Your task to perform on an android device: open wifi settings Image 0: 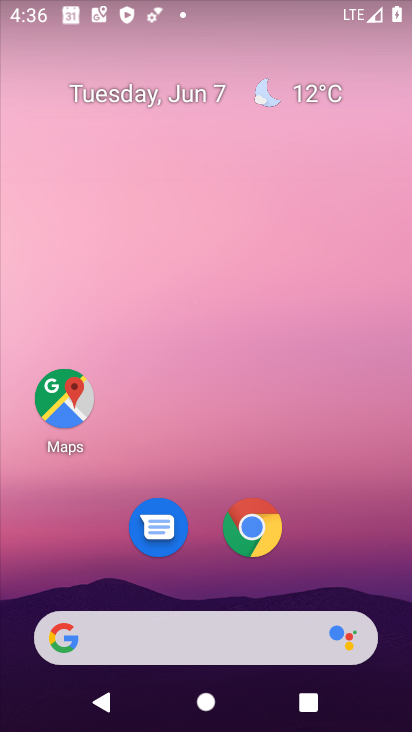
Step 0: drag from (314, 554) to (238, 167)
Your task to perform on an android device: open wifi settings Image 1: 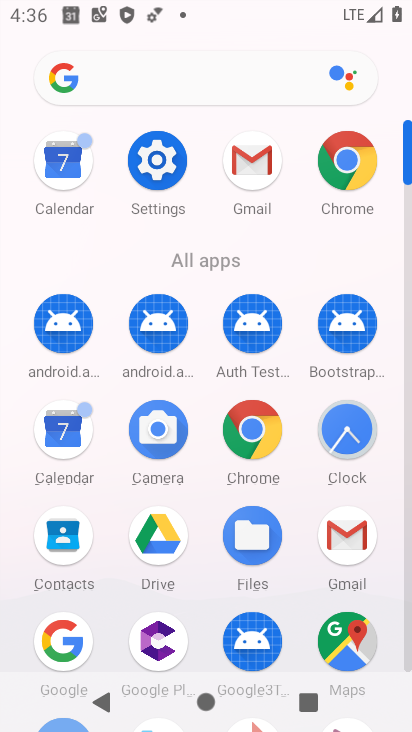
Step 1: click (156, 158)
Your task to perform on an android device: open wifi settings Image 2: 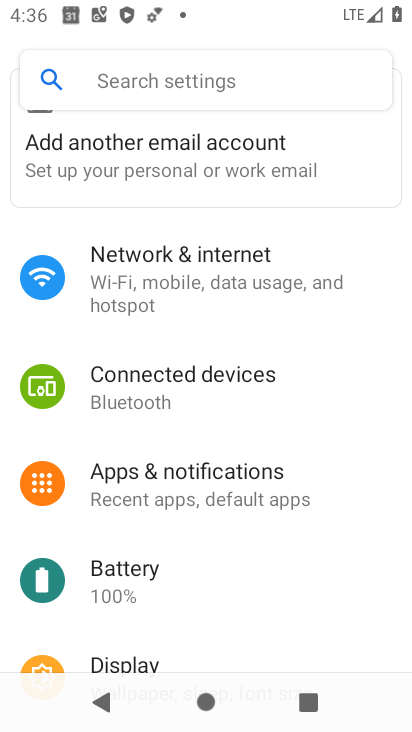
Step 2: click (199, 252)
Your task to perform on an android device: open wifi settings Image 3: 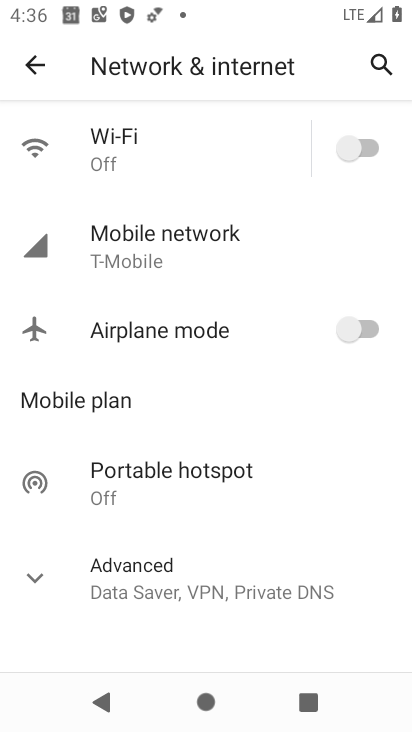
Step 3: click (114, 144)
Your task to perform on an android device: open wifi settings Image 4: 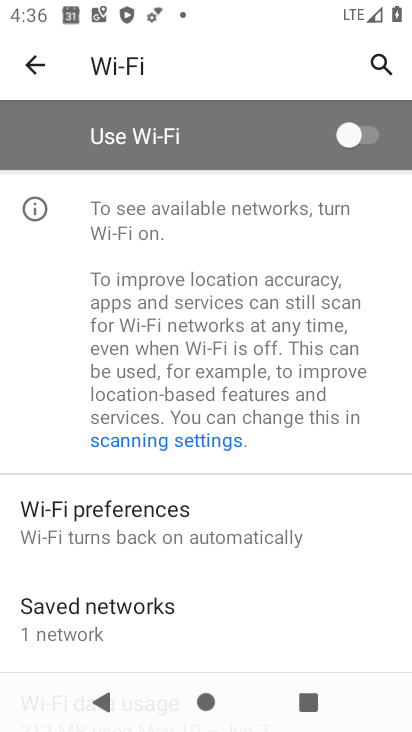
Step 4: task complete